Your task to perform on an android device: Search for pizza restaurants on Maps Image 0: 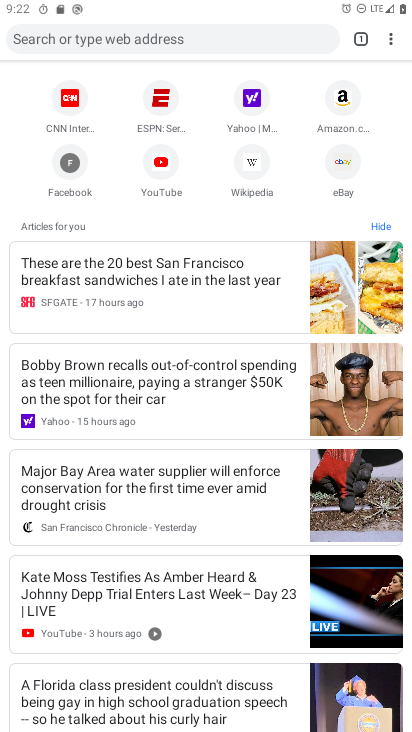
Step 0: press home button
Your task to perform on an android device: Search for pizza restaurants on Maps Image 1: 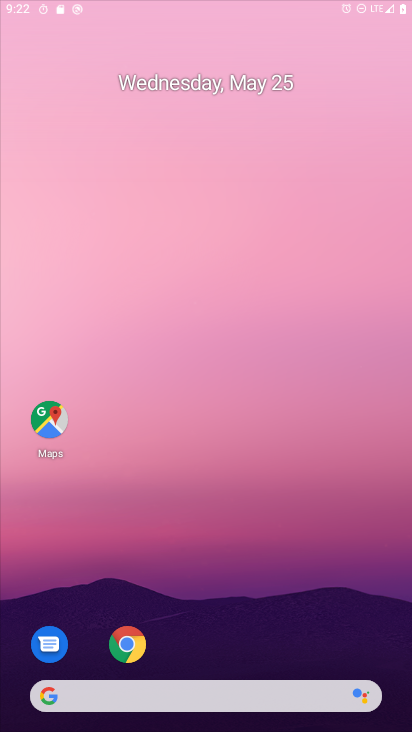
Step 1: drag from (333, 651) to (306, 125)
Your task to perform on an android device: Search for pizza restaurants on Maps Image 2: 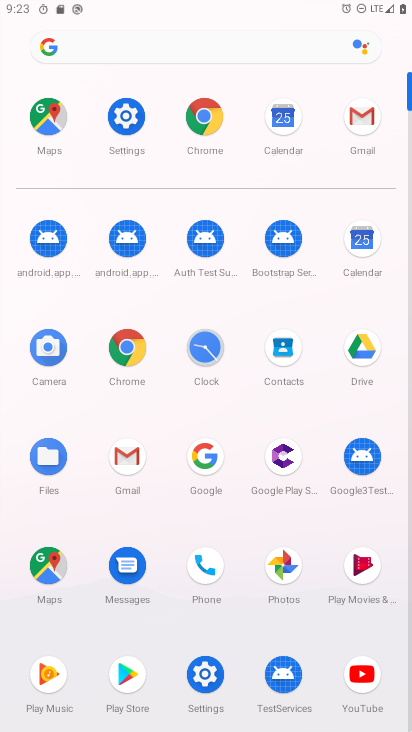
Step 2: click (66, 563)
Your task to perform on an android device: Search for pizza restaurants on Maps Image 3: 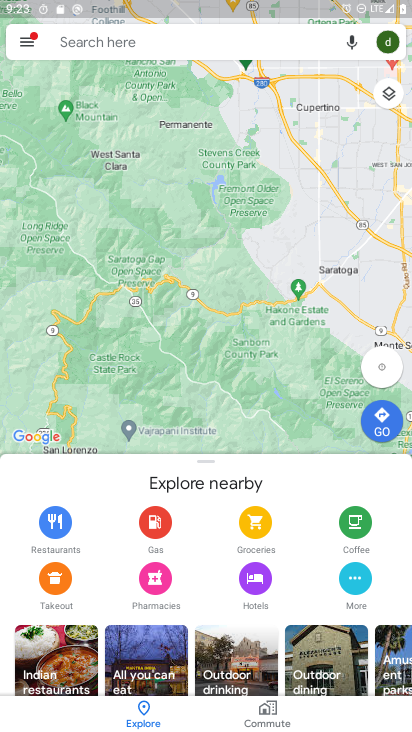
Step 3: click (131, 40)
Your task to perform on an android device: Search for pizza restaurants on Maps Image 4: 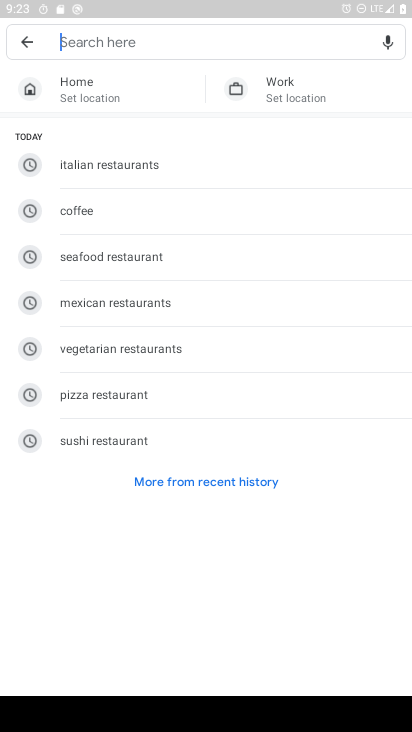
Step 4: click (112, 391)
Your task to perform on an android device: Search for pizza restaurants on Maps Image 5: 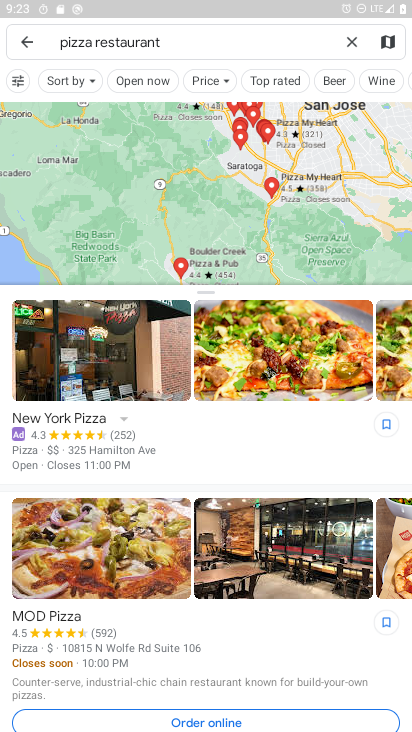
Step 5: task complete